Your task to perform on an android device: show emergency info Image 0: 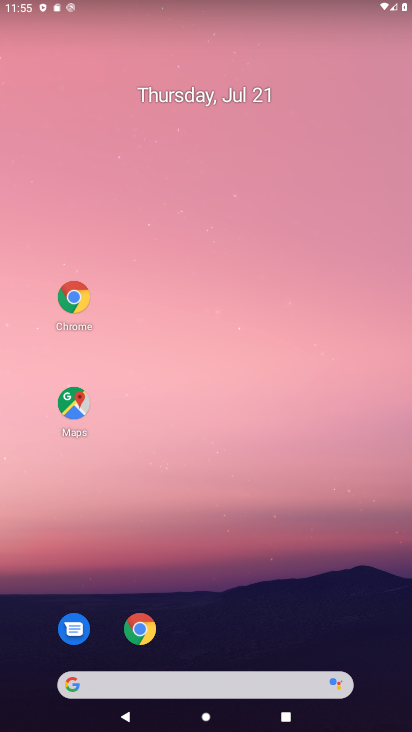
Step 0: drag from (273, 318) to (266, 177)
Your task to perform on an android device: show emergency info Image 1: 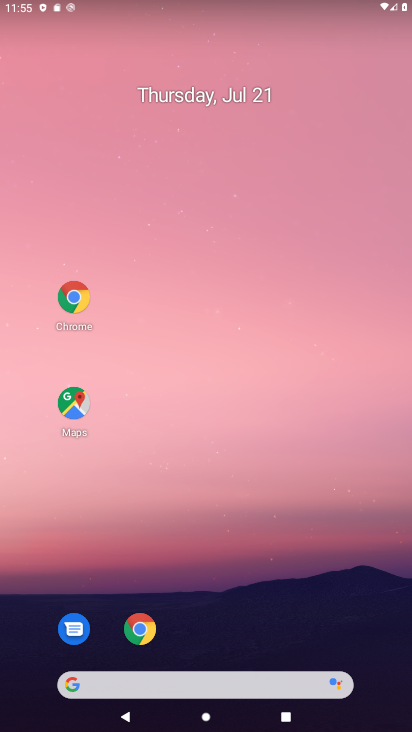
Step 1: drag from (175, 457) to (134, 2)
Your task to perform on an android device: show emergency info Image 2: 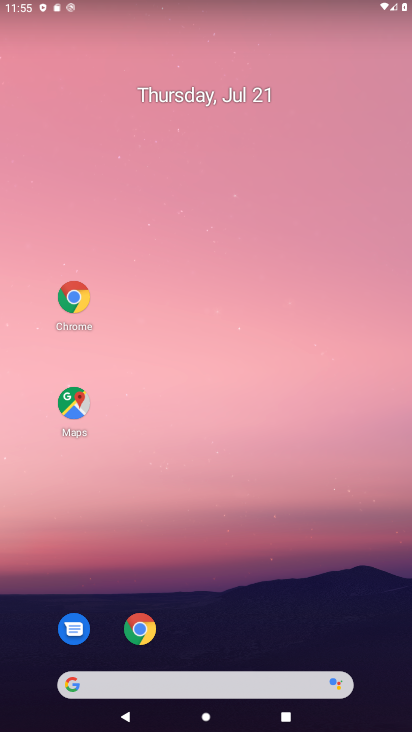
Step 2: drag from (217, 503) to (217, 93)
Your task to perform on an android device: show emergency info Image 3: 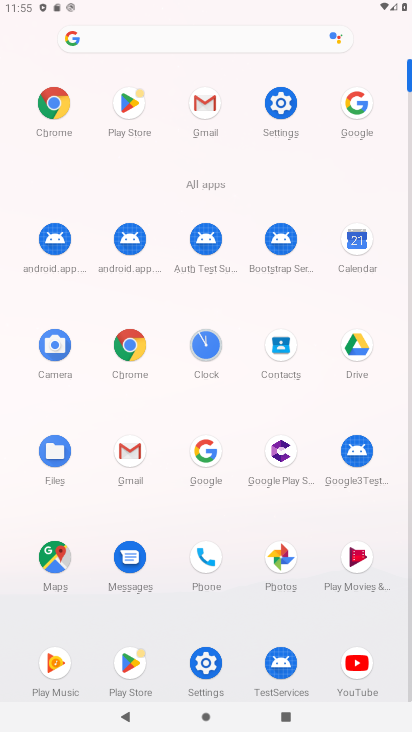
Step 3: click (280, 106)
Your task to perform on an android device: show emergency info Image 4: 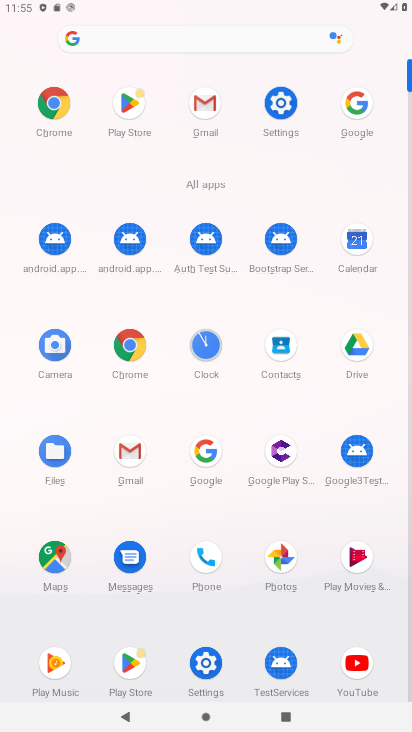
Step 4: click (279, 106)
Your task to perform on an android device: show emergency info Image 5: 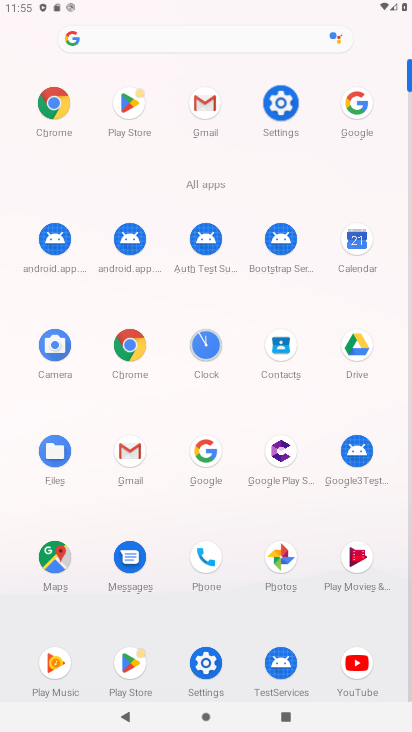
Step 5: click (279, 106)
Your task to perform on an android device: show emergency info Image 6: 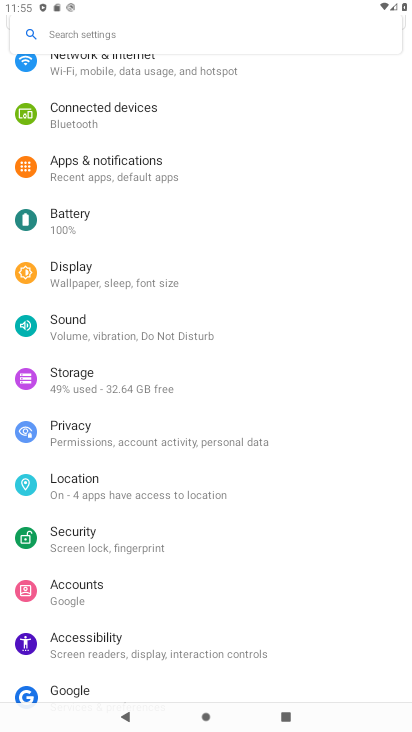
Step 6: drag from (101, 404) to (67, 188)
Your task to perform on an android device: show emergency info Image 7: 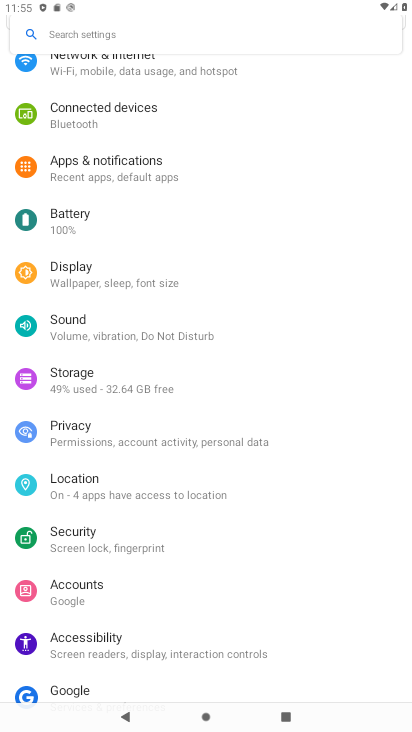
Step 7: drag from (95, 535) to (127, 222)
Your task to perform on an android device: show emergency info Image 8: 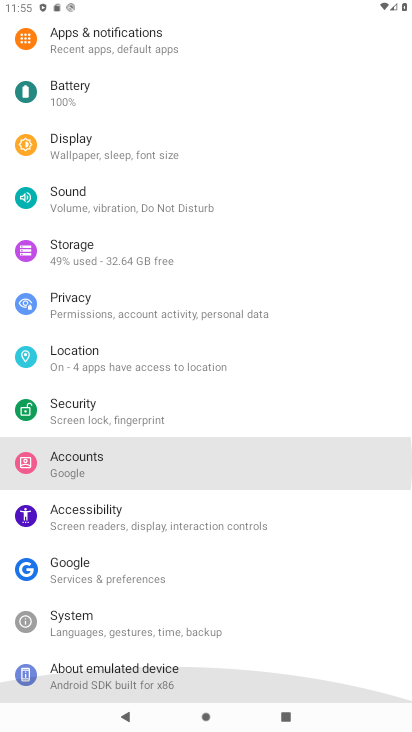
Step 8: drag from (169, 496) to (172, 221)
Your task to perform on an android device: show emergency info Image 9: 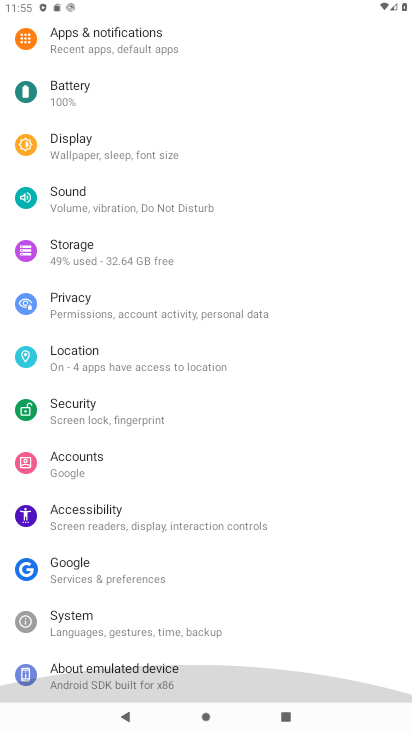
Step 9: drag from (160, 531) to (160, 295)
Your task to perform on an android device: show emergency info Image 10: 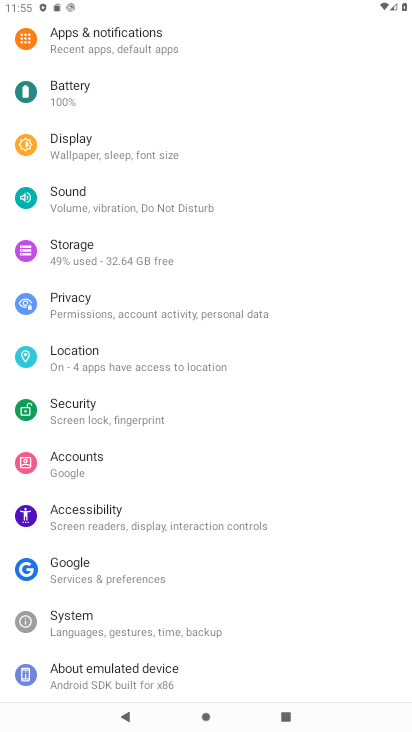
Step 10: click (115, 666)
Your task to perform on an android device: show emergency info Image 11: 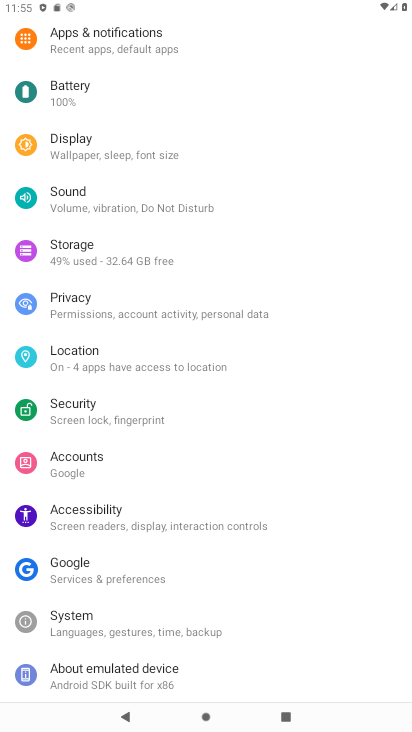
Step 11: click (115, 666)
Your task to perform on an android device: show emergency info Image 12: 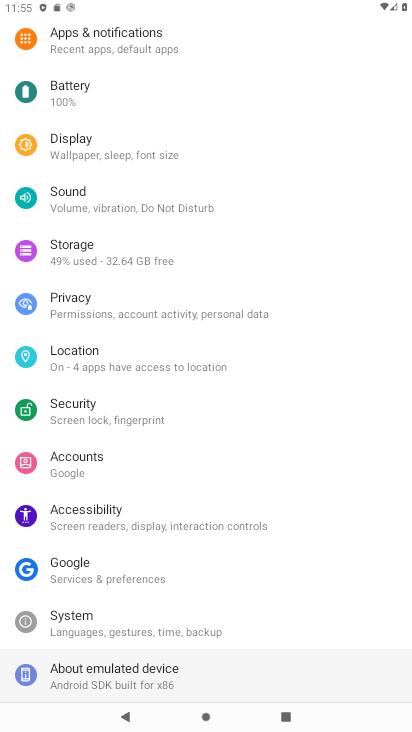
Step 12: click (117, 667)
Your task to perform on an android device: show emergency info Image 13: 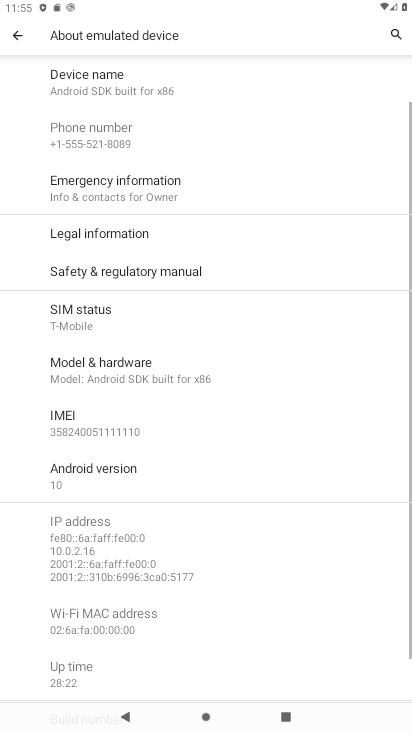
Step 13: click (196, 252)
Your task to perform on an android device: show emergency info Image 14: 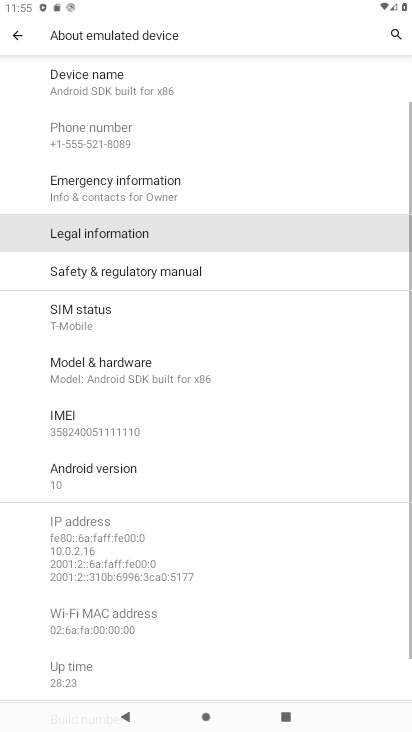
Step 14: task complete